Your task to perform on an android device: turn on the 12-hour format for clock Image 0: 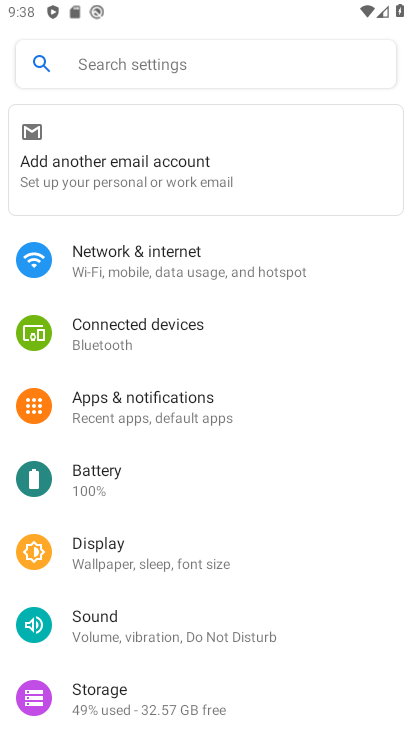
Step 0: press home button
Your task to perform on an android device: turn on the 12-hour format for clock Image 1: 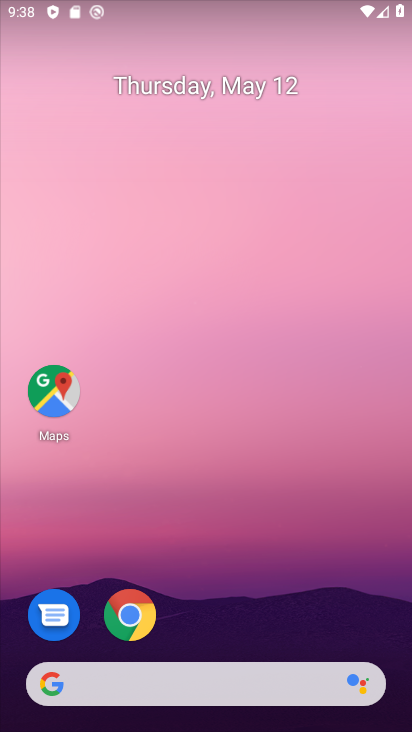
Step 1: drag from (203, 721) to (181, 74)
Your task to perform on an android device: turn on the 12-hour format for clock Image 2: 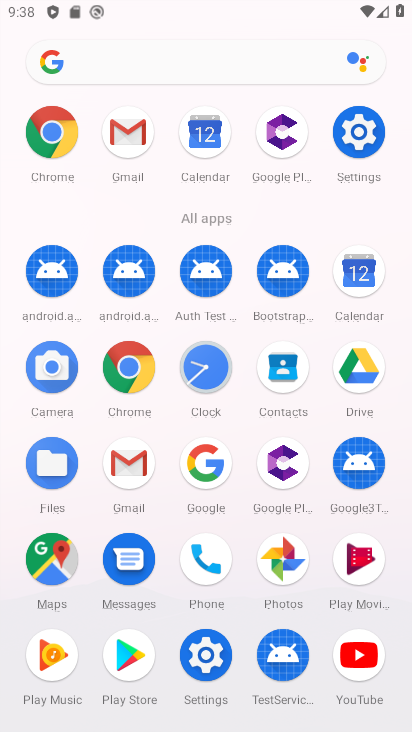
Step 2: click (204, 377)
Your task to perform on an android device: turn on the 12-hour format for clock Image 3: 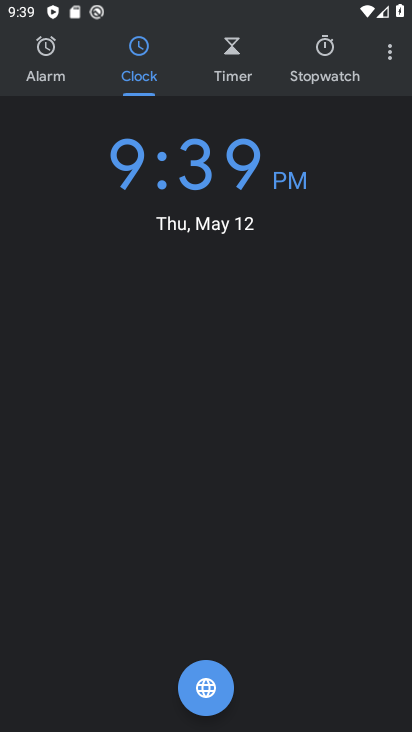
Step 3: click (390, 57)
Your task to perform on an android device: turn on the 12-hour format for clock Image 4: 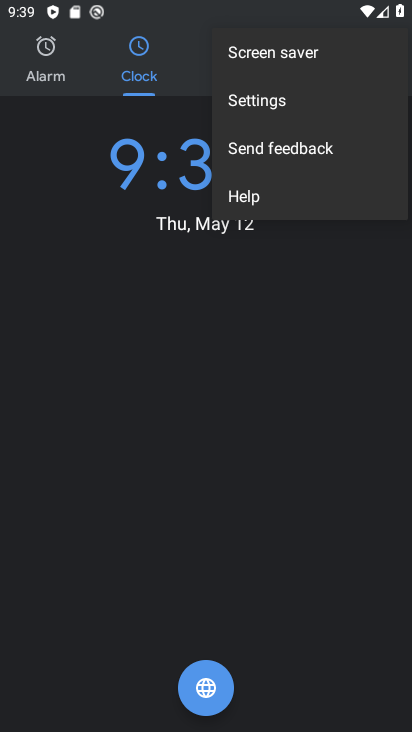
Step 4: click (281, 104)
Your task to perform on an android device: turn on the 12-hour format for clock Image 5: 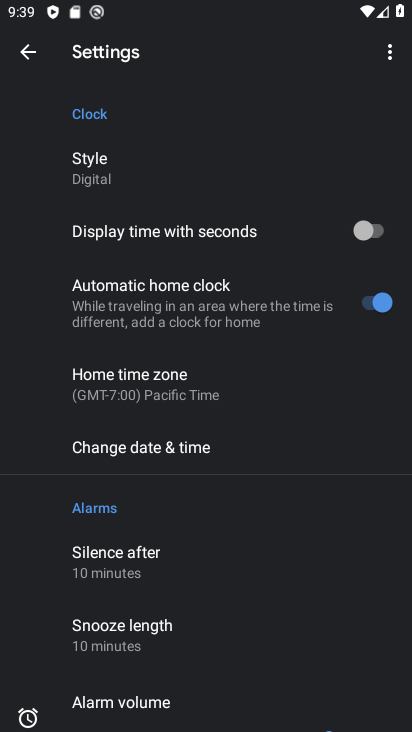
Step 5: drag from (163, 591) to (180, 454)
Your task to perform on an android device: turn on the 12-hour format for clock Image 6: 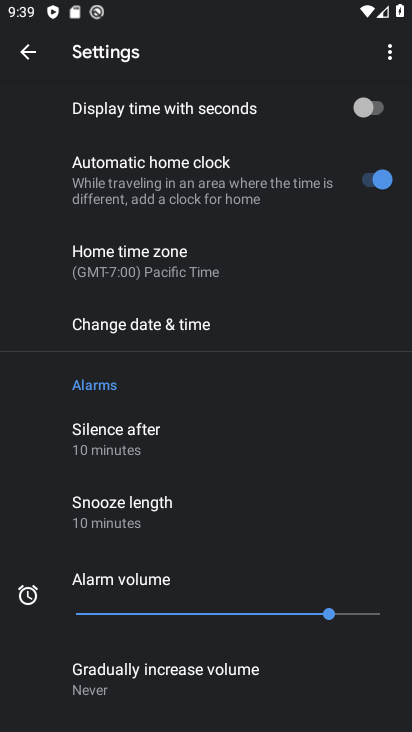
Step 6: click (141, 323)
Your task to perform on an android device: turn on the 12-hour format for clock Image 7: 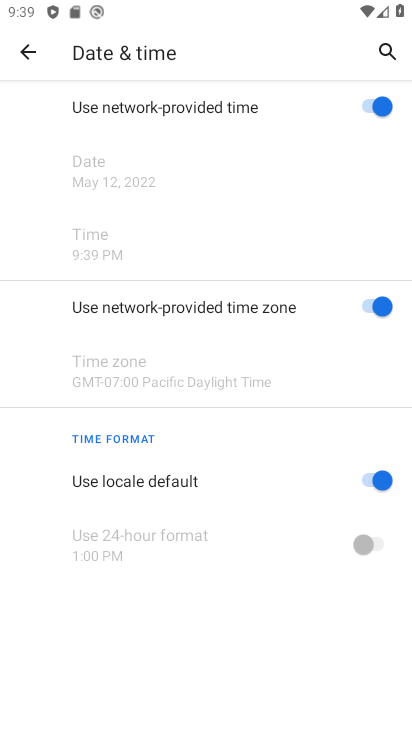
Step 7: task complete